Your task to perform on an android device: Open calendar and show me the fourth week of next month Image 0: 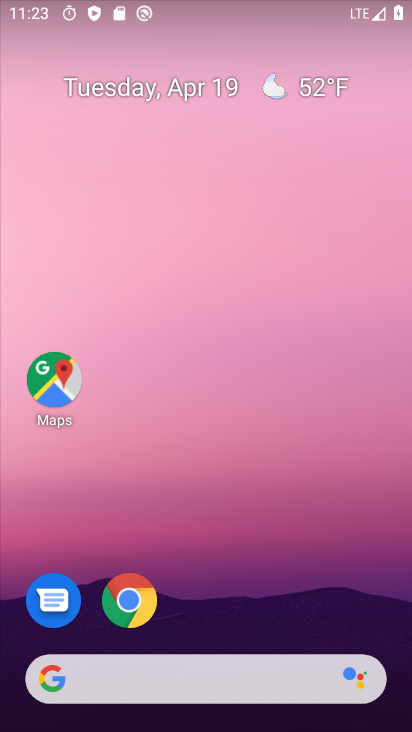
Step 0: drag from (250, 625) to (230, 29)
Your task to perform on an android device: Open calendar and show me the fourth week of next month Image 1: 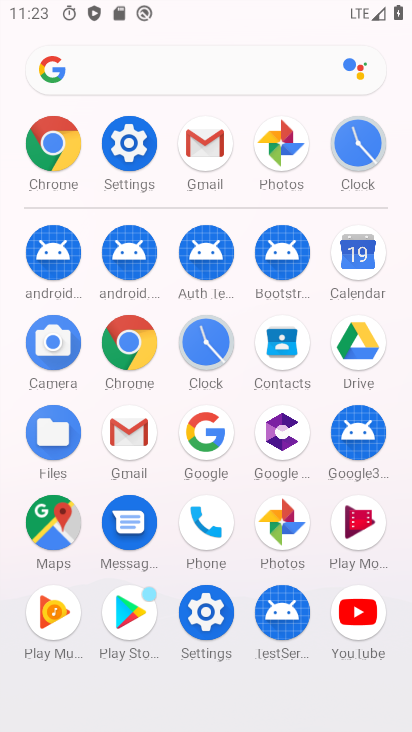
Step 1: click (358, 279)
Your task to perform on an android device: Open calendar and show me the fourth week of next month Image 2: 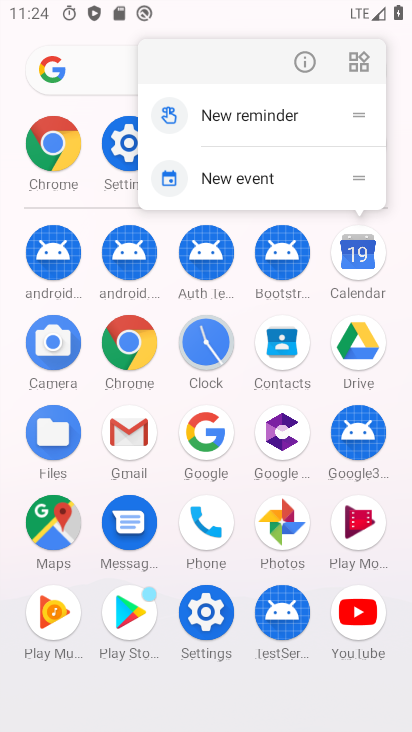
Step 2: click (355, 262)
Your task to perform on an android device: Open calendar and show me the fourth week of next month Image 3: 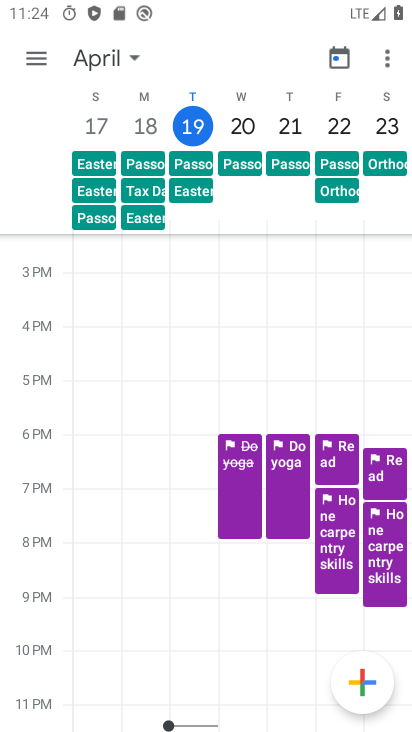
Step 3: click (38, 61)
Your task to perform on an android device: Open calendar and show me the fourth week of next month Image 4: 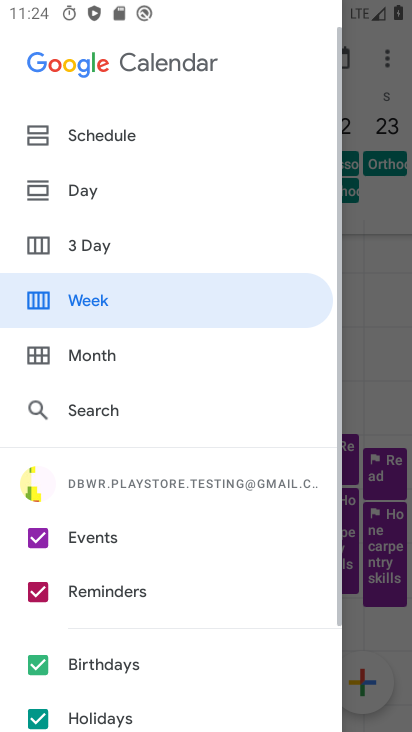
Step 4: click (107, 311)
Your task to perform on an android device: Open calendar and show me the fourth week of next month Image 5: 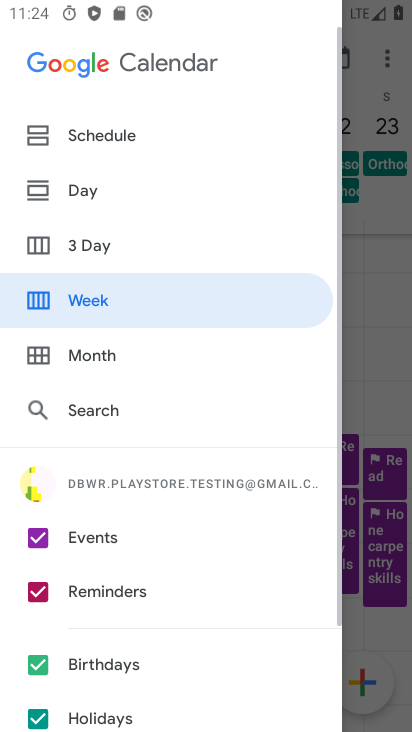
Step 5: click (277, 291)
Your task to perform on an android device: Open calendar and show me the fourth week of next month Image 6: 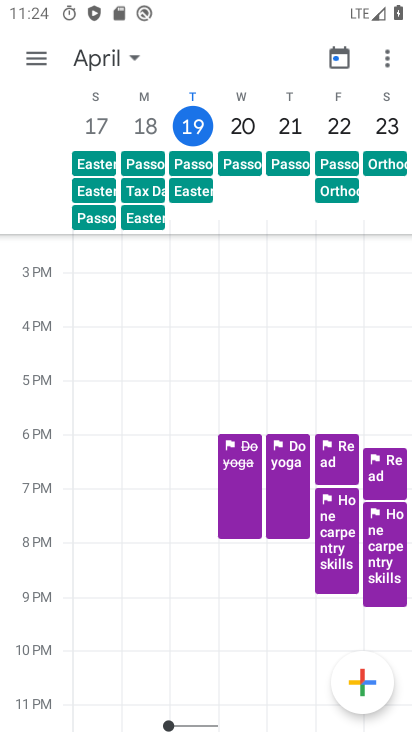
Step 6: task complete